Your task to perform on an android device: Open the calendar and show me this week's events? Image 0: 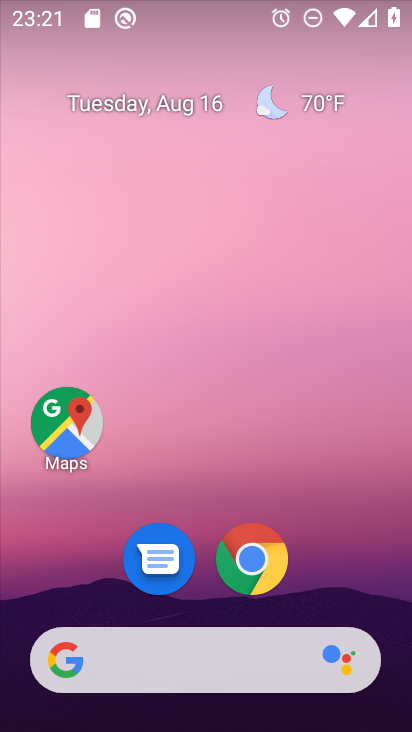
Step 0: drag from (178, 663) to (227, 145)
Your task to perform on an android device: Open the calendar and show me this week's events? Image 1: 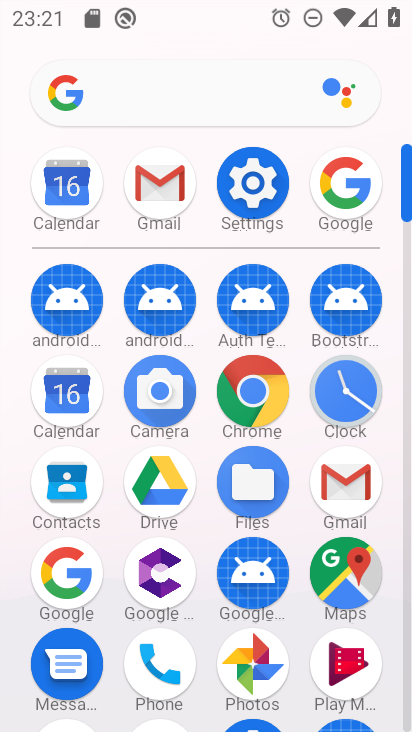
Step 1: click (68, 396)
Your task to perform on an android device: Open the calendar and show me this week's events? Image 2: 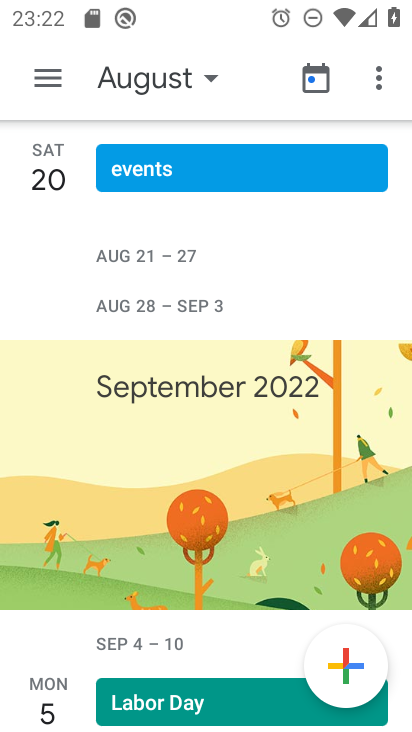
Step 2: click (320, 82)
Your task to perform on an android device: Open the calendar and show me this week's events? Image 3: 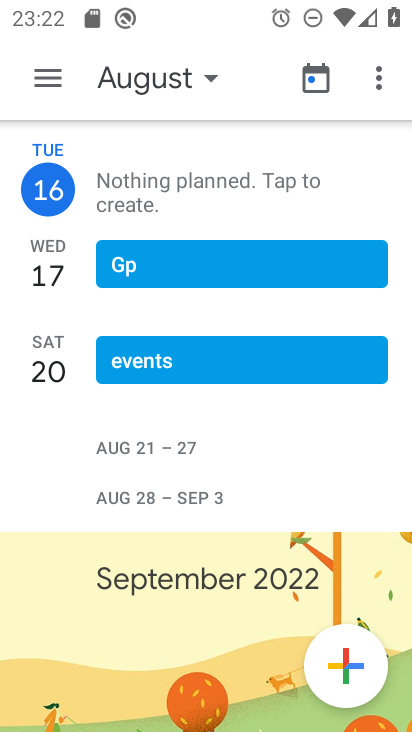
Step 3: click (214, 83)
Your task to perform on an android device: Open the calendar and show me this week's events? Image 4: 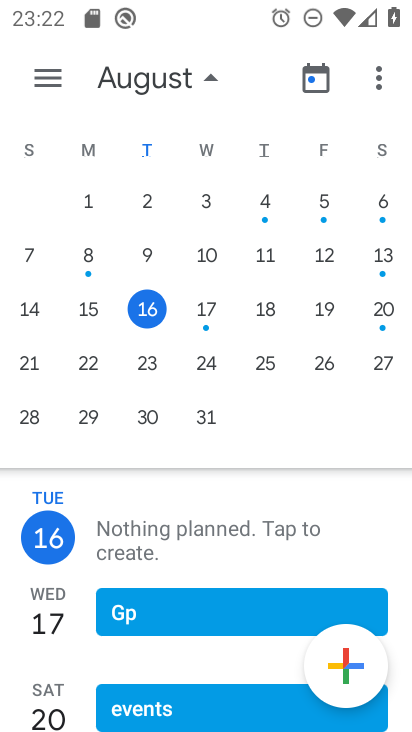
Step 4: click (66, 94)
Your task to perform on an android device: Open the calendar and show me this week's events? Image 5: 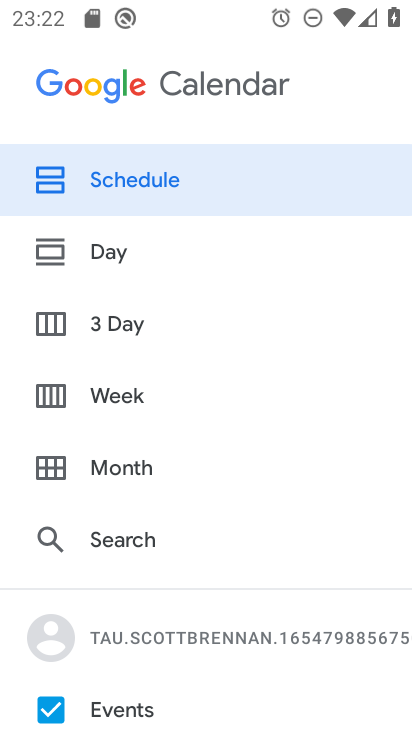
Step 5: click (118, 392)
Your task to perform on an android device: Open the calendar and show me this week's events? Image 6: 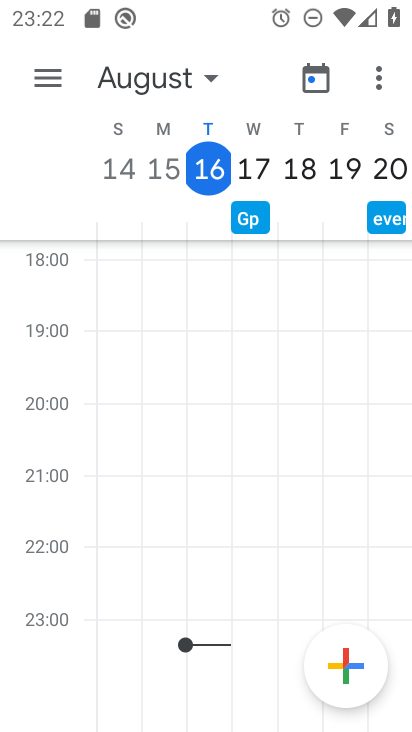
Step 6: task complete